Your task to perform on an android device: Go to Wikipedia Image 0: 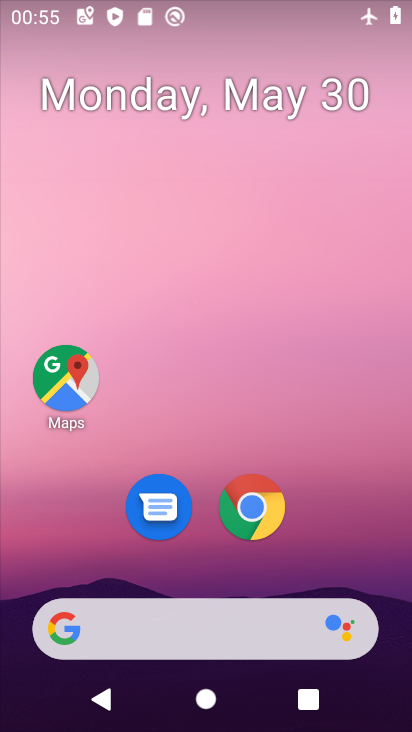
Step 0: click (241, 493)
Your task to perform on an android device: Go to Wikipedia Image 1: 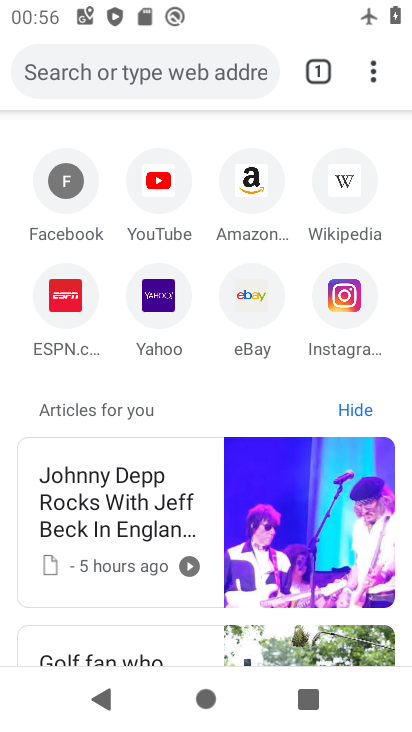
Step 1: click (340, 191)
Your task to perform on an android device: Go to Wikipedia Image 2: 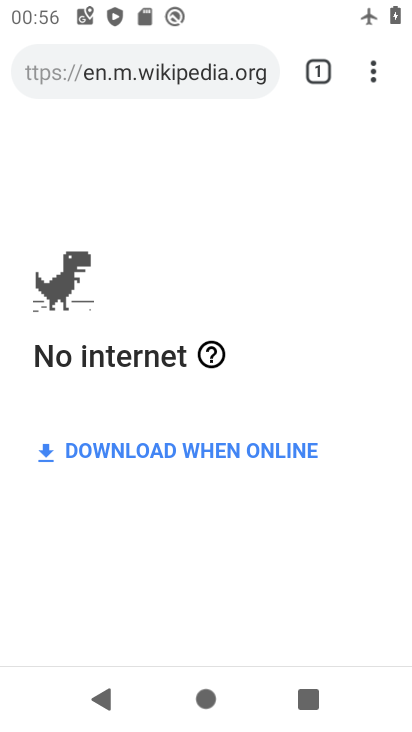
Step 2: task complete